Your task to perform on an android device: install app "Paramount+ | Peak Streaming" Image 0: 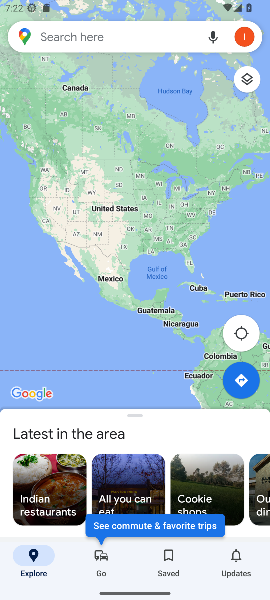
Step 0: press back button
Your task to perform on an android device: install app "Paramount+ | Peak Streaming" Image 1: 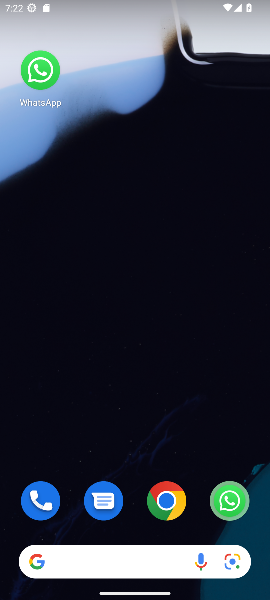
Step 1: drag from (129, 470) to (129, 86)
Your task to perform on an android device: install app "Paramount+ | Peak Streaming" Image 2: 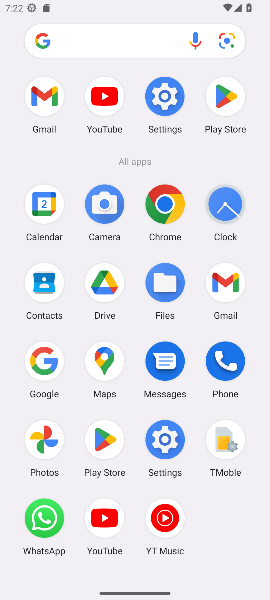
Step 2: drag from (104, 444) to (128, 202)
Your task to perform on an android device: install app "Paramount+ | Peak Streaming" Image 3: 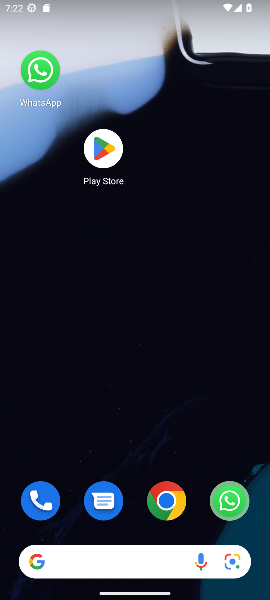
Step 3: click (111, 154)
Your task to perform on an android device: install app "Paramount+ | Peak Streaming" Image 4: 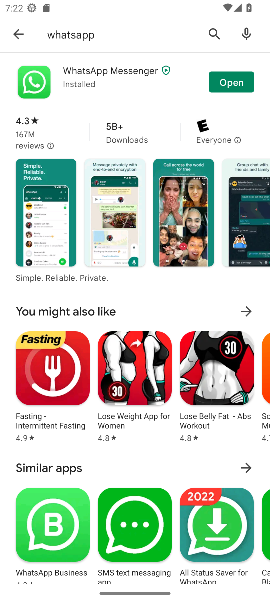
Step 4: click (217, 37)
Your task to perform on an android device: install app "Paramount+ | Peak Streaming" Image 5: 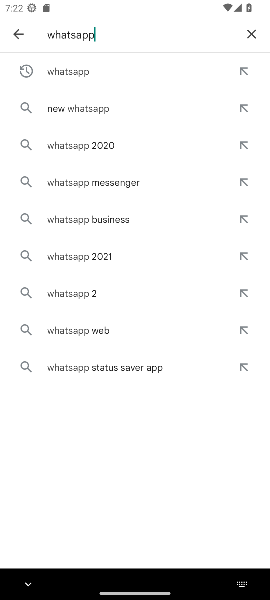
Step 5: click (253, 38)
Your task to perform on an android device: install app "Paramount+ | Peak Streaming" Image 6: 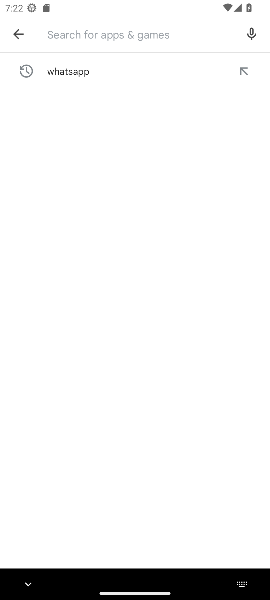
Step 6: type "paramount peak"
Your task to perform on an android device: install app "Paramount+ | Peak Streaming" Image 7: 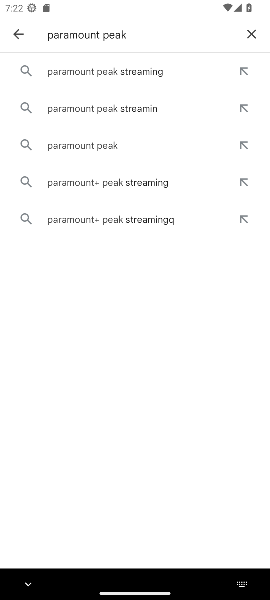
Step 7: click (77, 77)
Your task to perform on an android device: install app "Paramount+ | Peak Streaming" Image 8: 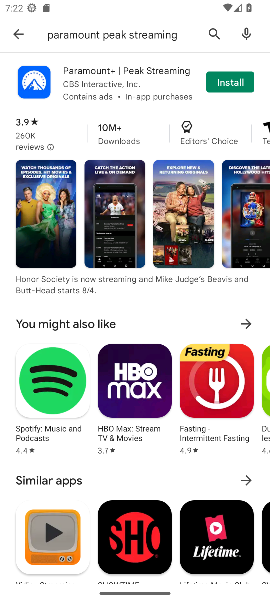
Step 8: click (241, 82)
Your task to perform on an android device: install app "Paramount+ | Peak Streaming" Image 9: 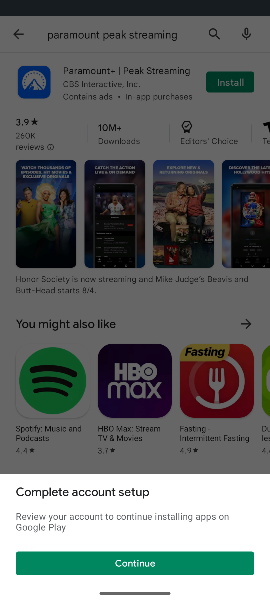
Step 9: click (160, 568)
Your task to perform on an android device: install app "Paramount+ | Peak Streaming" Image 10: 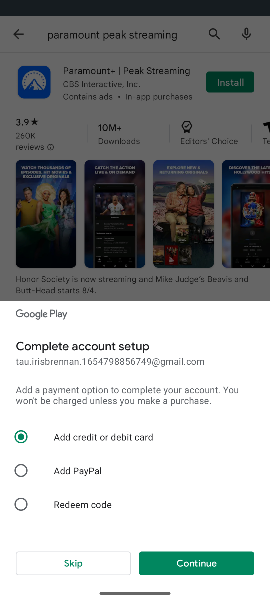
Step 10: click (68, 567)
Your task to perform on an android device: install app "Paramount+ | Peak Streaming" Image 11: 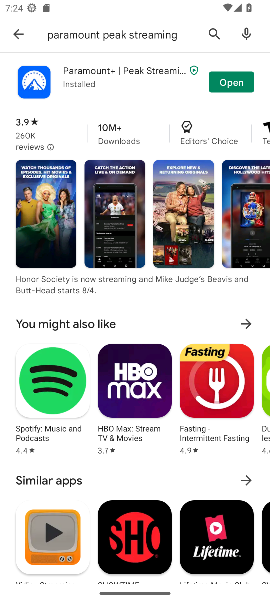
Step 11: task complete